Your task to perform on an android device: See recent photos Image 0: 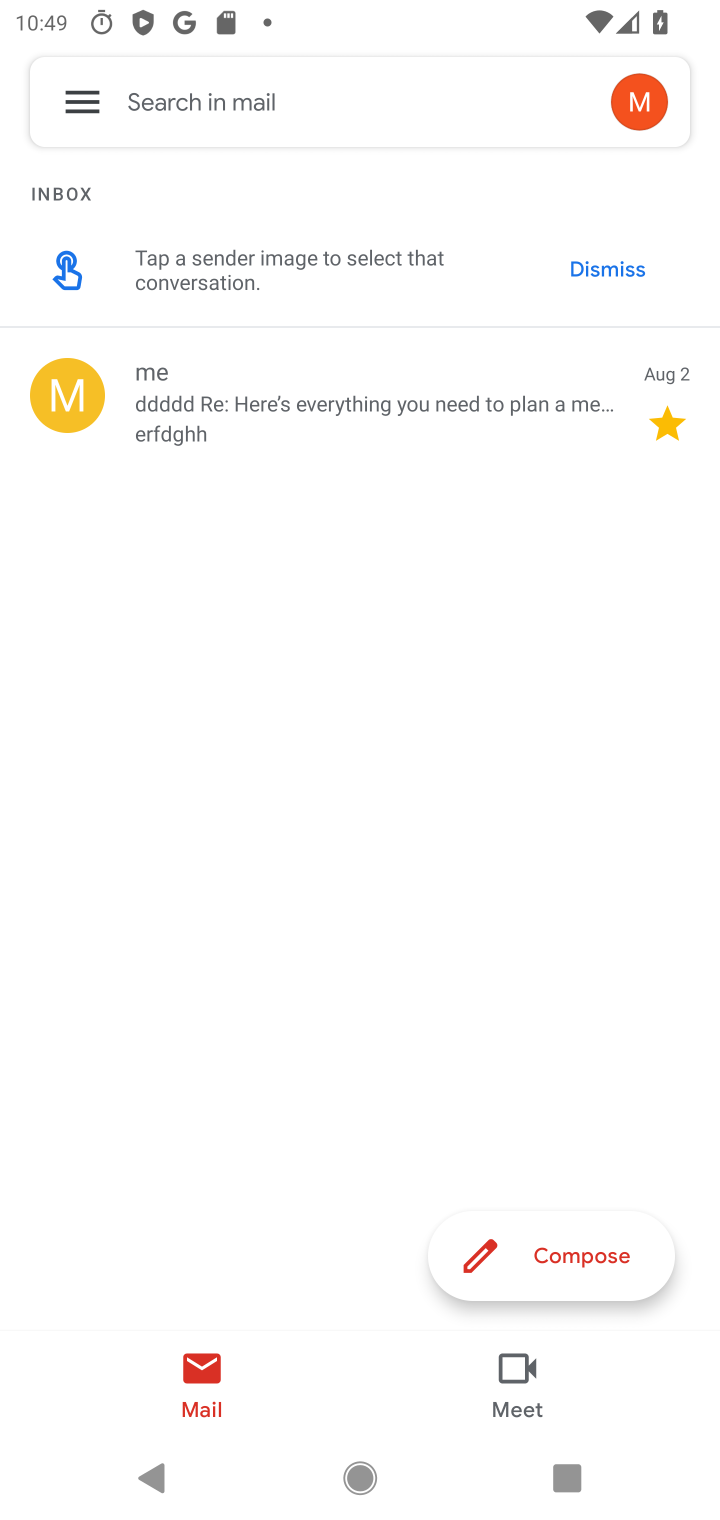
Step 0: press home button
Your task to perform on an android device: See recent photos Image 1: 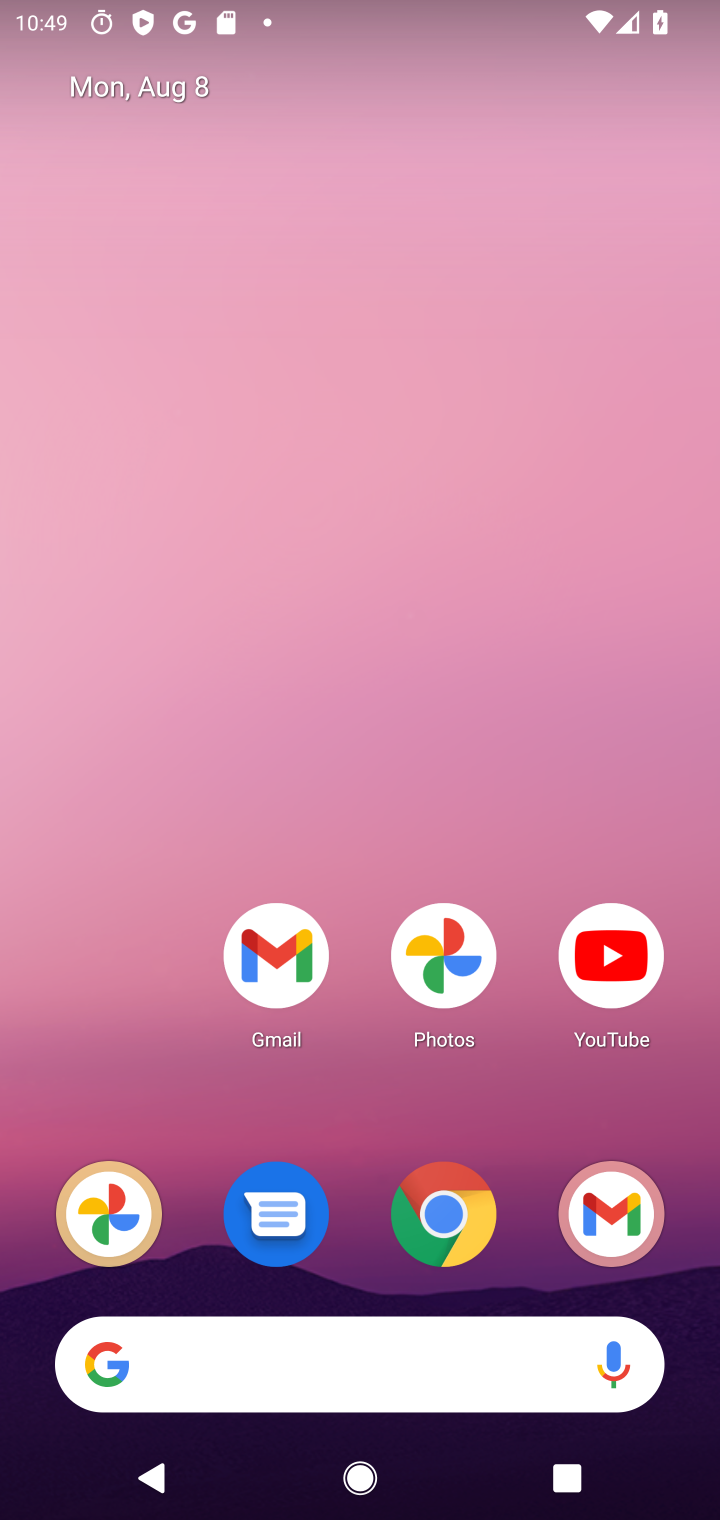
Step 1: click (445, 1002)
Your task to perform on an android device: See recent photos Image 2: 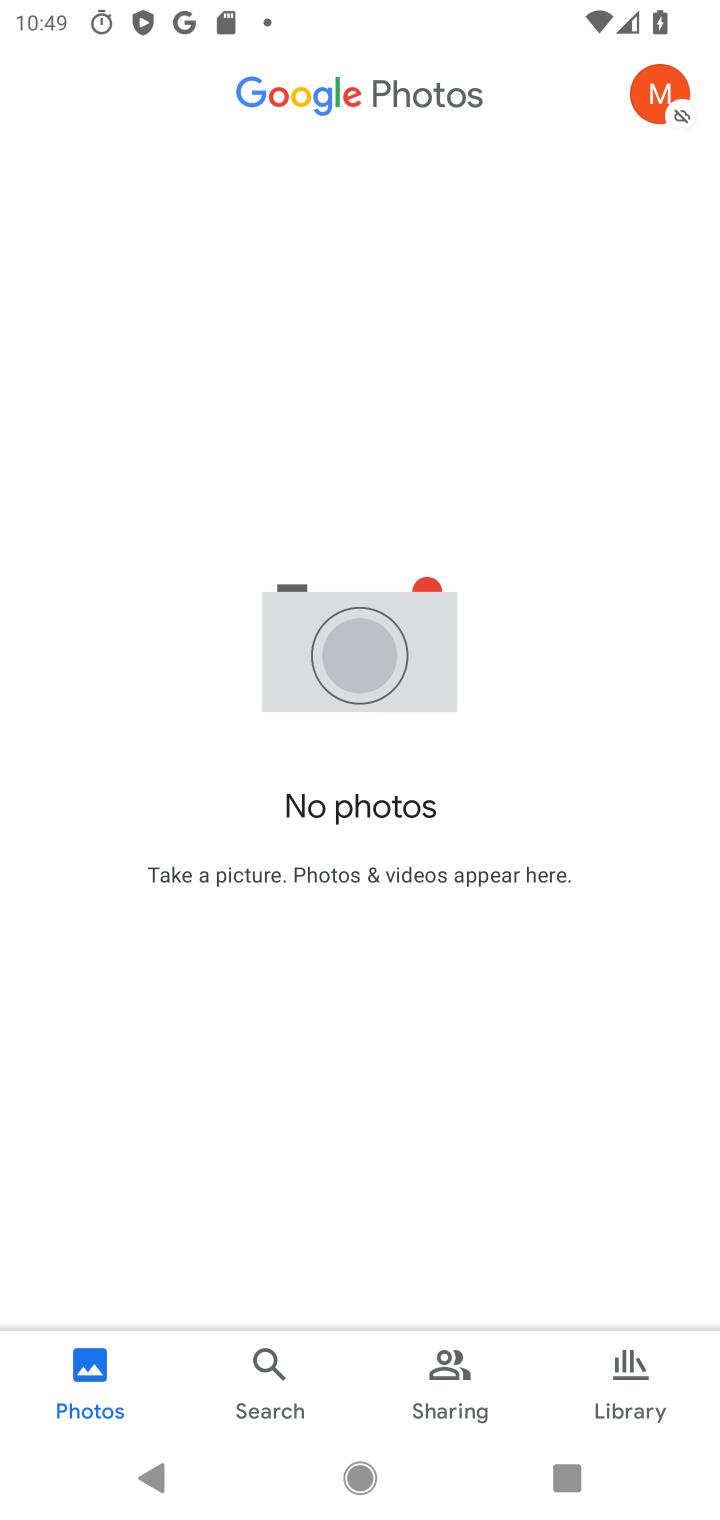
Step 2: task complete